Your task to perform on an android device: Open the stopwatch Image 0: 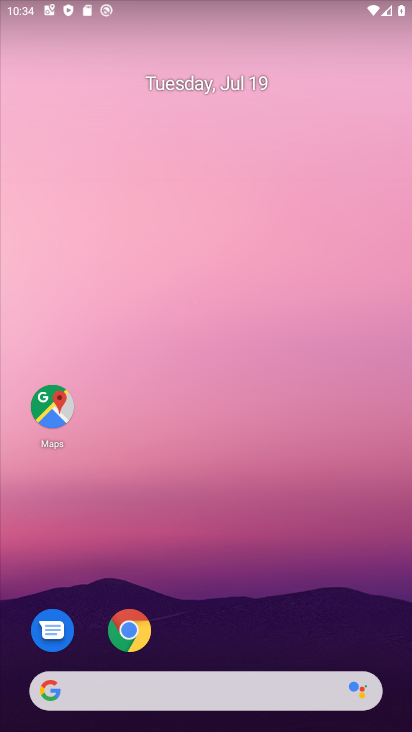
Step 0: press home button
Your task to perform on an android device: Open the stopwatch Image 1: 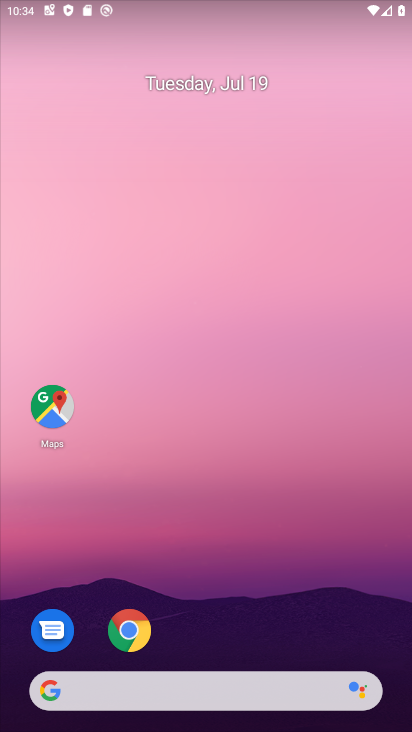
Step 1: drag from (28, 537) to (189, 46)
Your task to perform on an android device: Open the stopwatch Image 2: 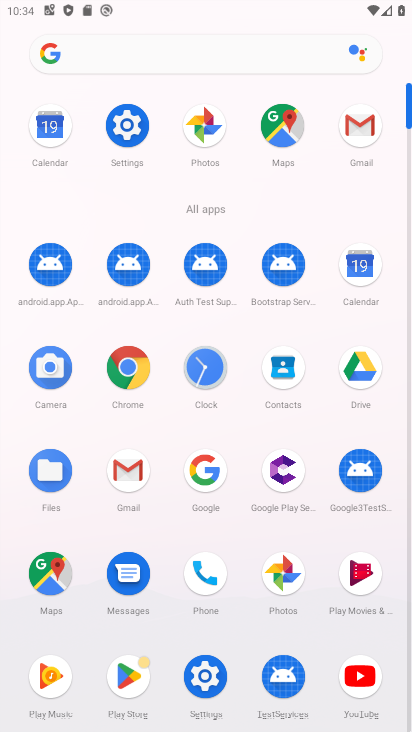
Step 2: click (201, 364)
Your task to perform on an android device: Open the stopwatch Image 3: 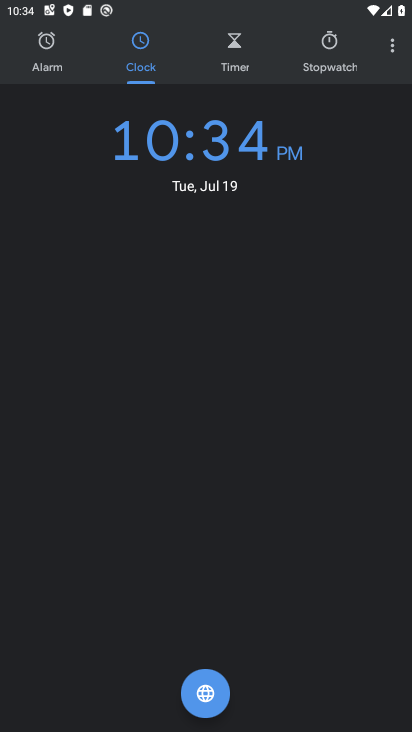
Step 3: click (319, 47)
Your task to perform on an android device: Open the stopwatch Image 4: 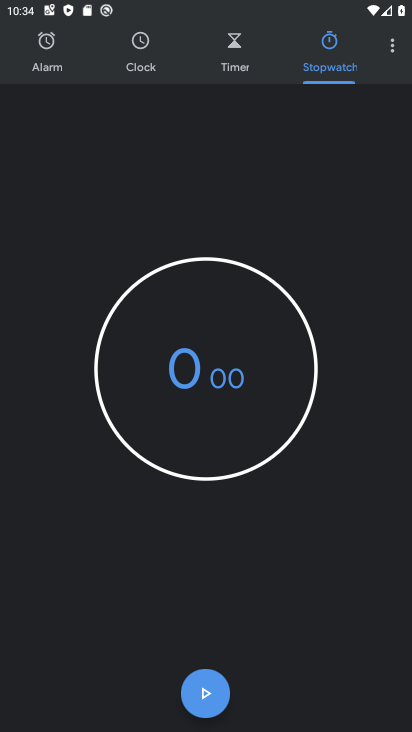
Step 4: task complete